Your task to perform on an android device: Check the weather Image 0: 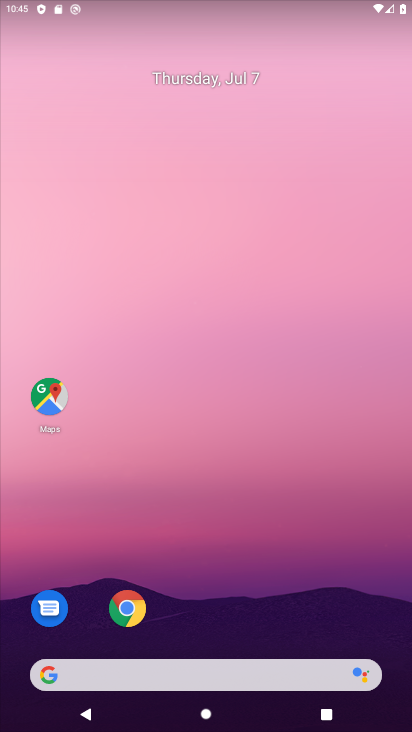
Step 0: click (150, 666)
Your task to perform on an android device: Check the weather Image 1: 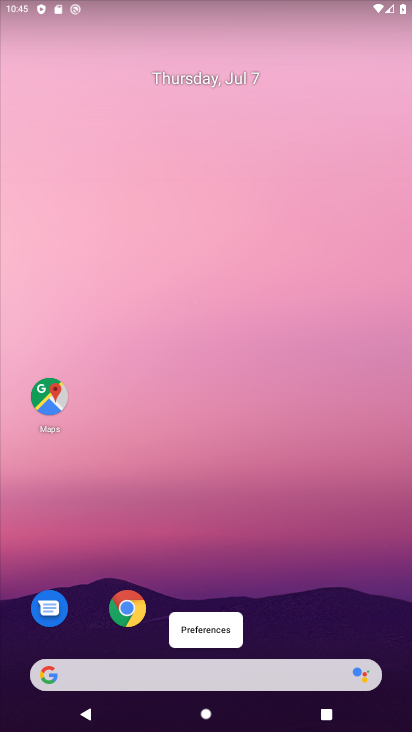
Step 1: click (174, 677)
Your task to perform on an android device: Check the weather Image 2: 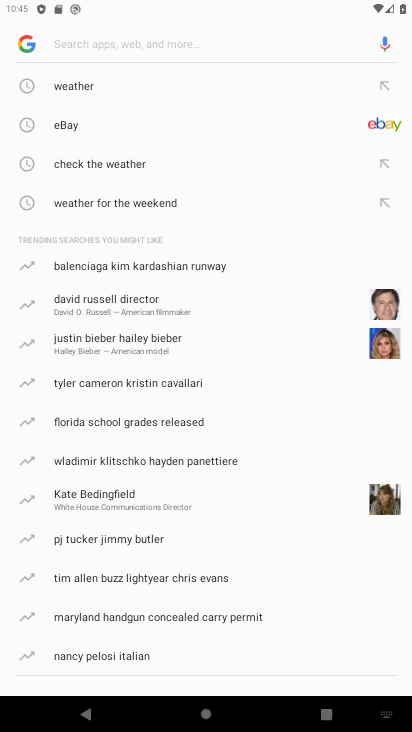
Step 2: click (78, 78)
Your task to perform on an android device: Check the weather Image 3: 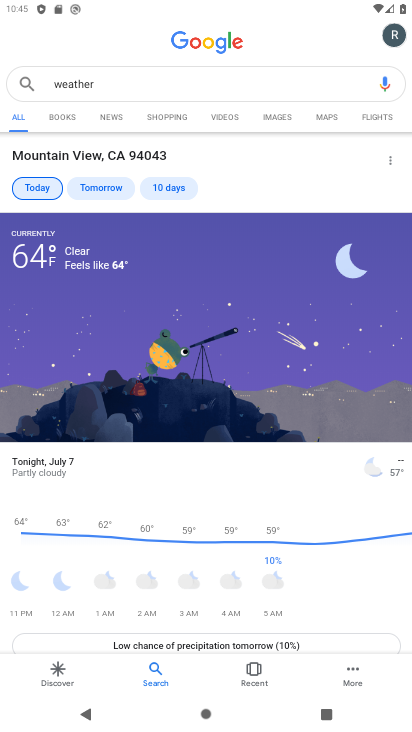
Step 3: task complete